Your task to perform on an android device: Open battery settings Image 0: 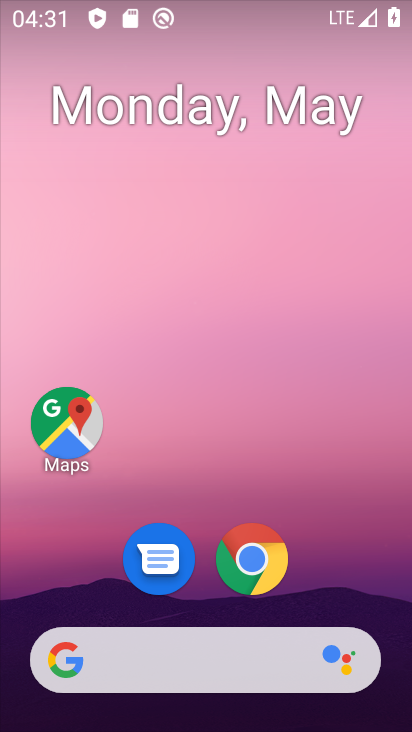
Step 0: drag from (164, 688) to (332, 23)
Your task to perform on an android device: Open battery settings Image 1: 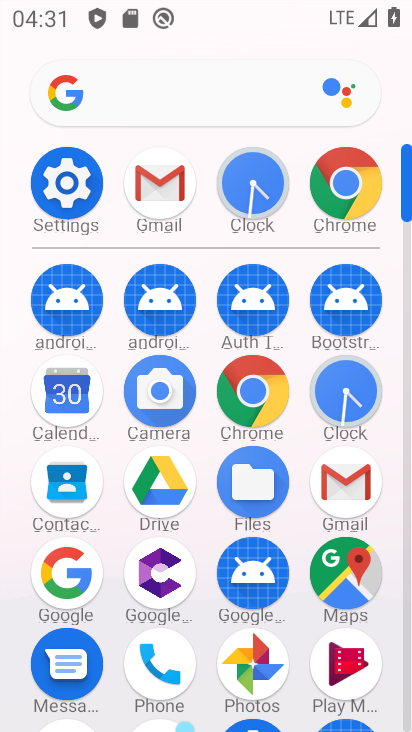
Step 1: click (89, 194)
Your task to perform on an android device: Open battery settings Image 2: 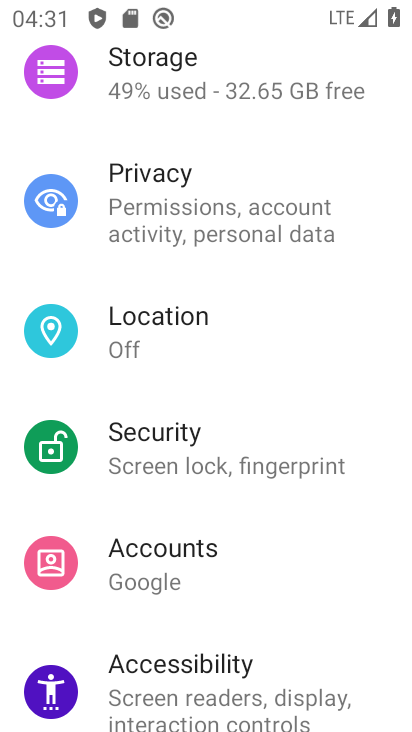
Step 2: drag from (233, 304) to (237, 730)
Your task to perform on an android device: Open battery settings Image 3: 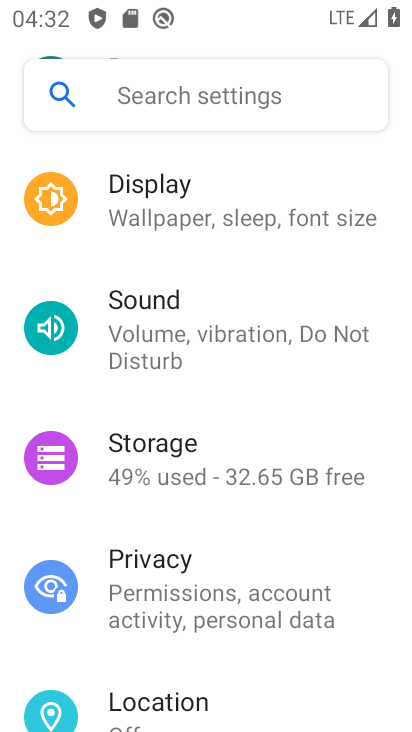
Step 3: drag from (216, 268) to (209, 611)
Your task to perform on an android device: Open battery settings Image 4: 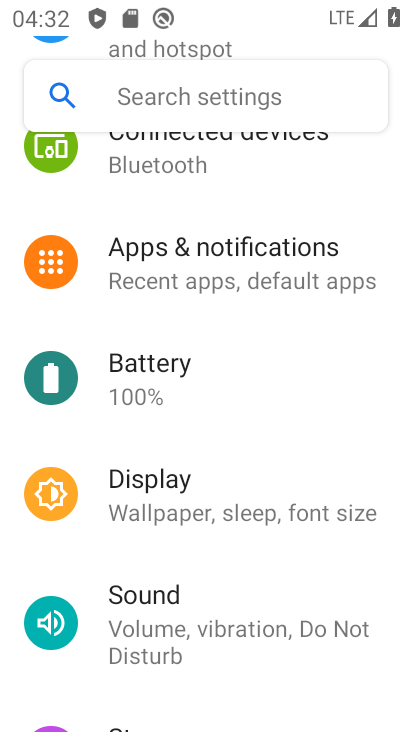
Step 4: click (192, 389)
Your task to perform on an android device: Open battery settings Image 5: 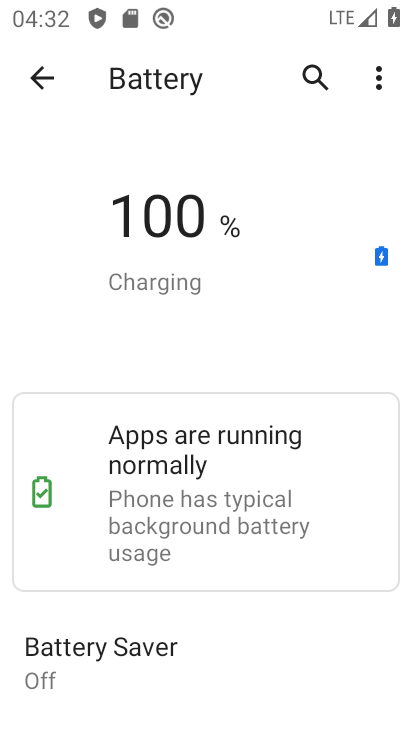
Step 5: task complete